Your task to perform on an android device: make emails show in primary in the gmail app Image 0: 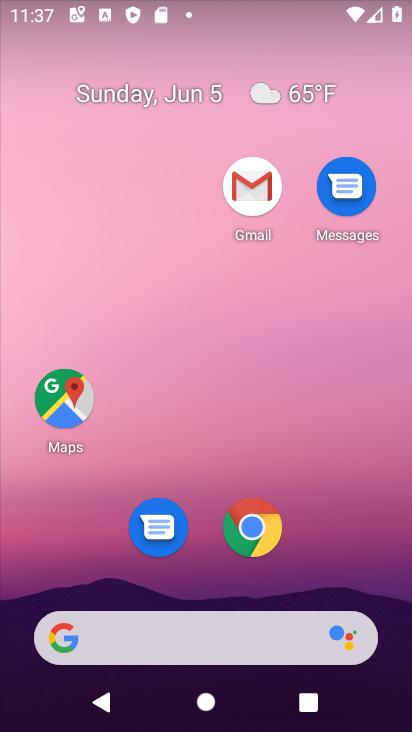
Step 0: click (252, 194)
Your task to perform on an android device: make emails show in primary in the gmail app Image 1: 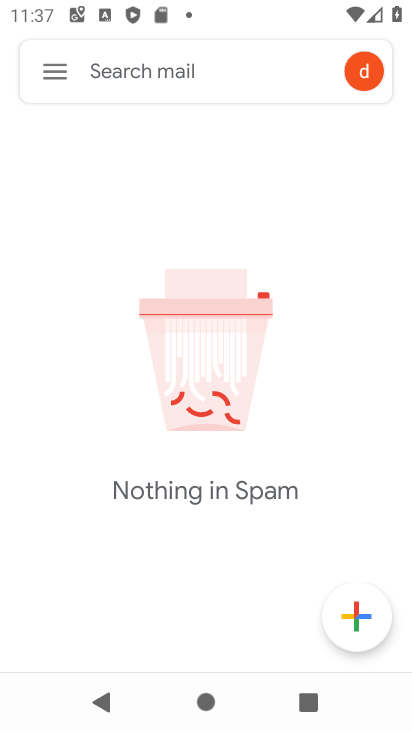
Step 1: click (58, 61)
Your task to perform on an android device: make emails show in primary in the gmail app Image 2: 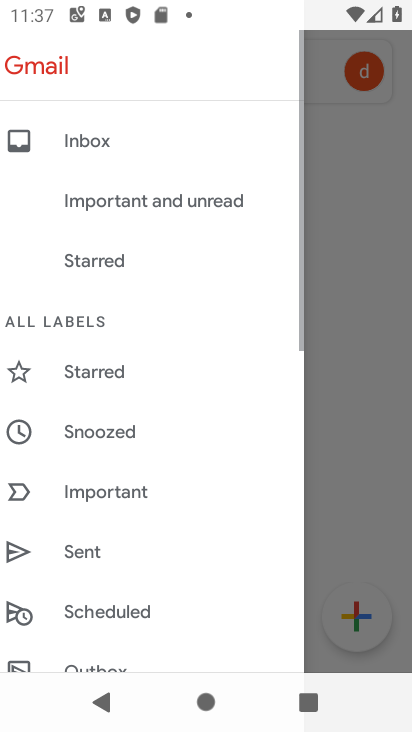
Step 2: click (60, 60)
Your task to perform on an android device: make emails show in primary in the gmail app Image 3: 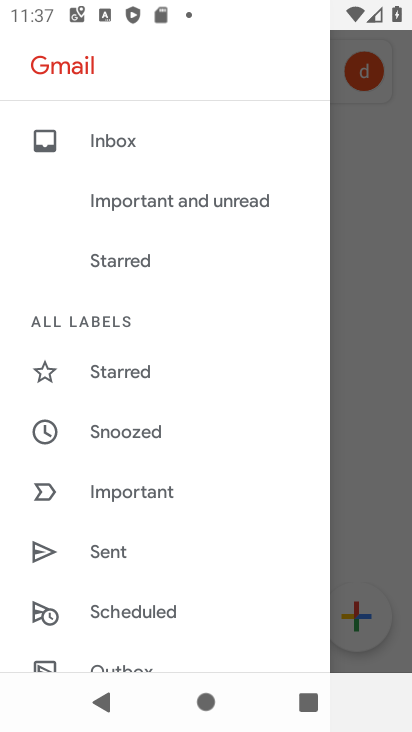
Step 3: drag from (195, 572) to (210, 467)
Your task to perform on an android device: make emails show in primary in the gmail app Image 4: 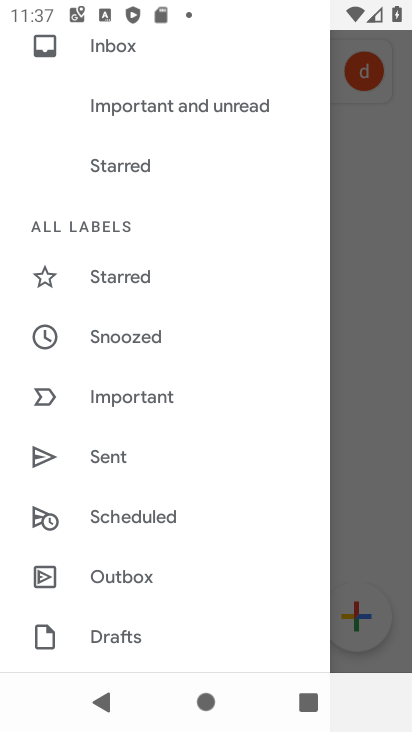
Step 4: drag from (292, 600) to (280, 459)
Your task to perform on an android device: make emails show in primary in the gmail app Image 5: 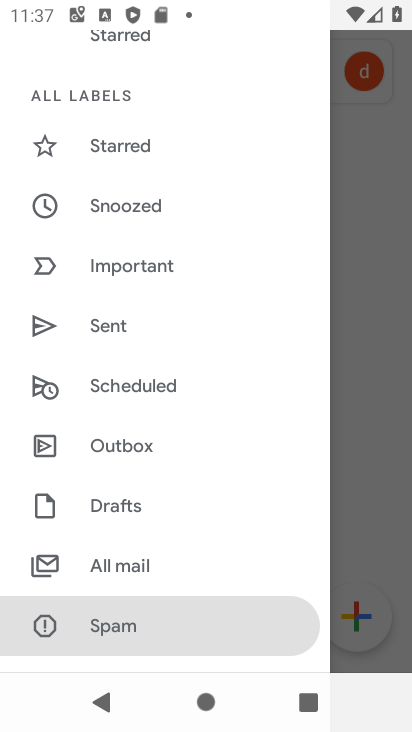
Step 5: click (252, 496)
Your task to perform on an android device: make emails show in primary in the gmail app Image 6: 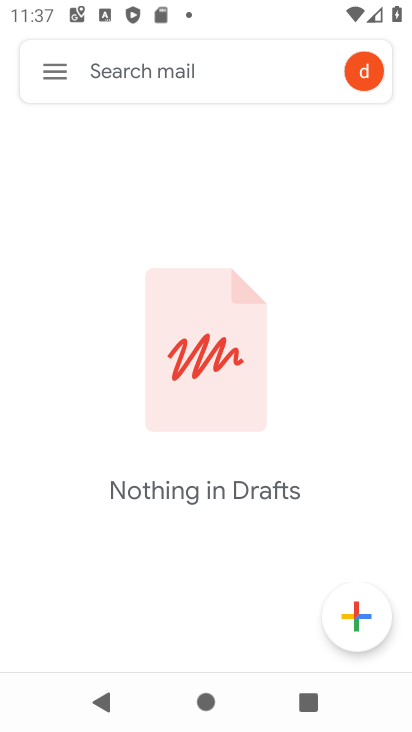
Step 6: click (59, 76)
Your task to perform on an android device: make emails show in primary in the gmail app Image 7: 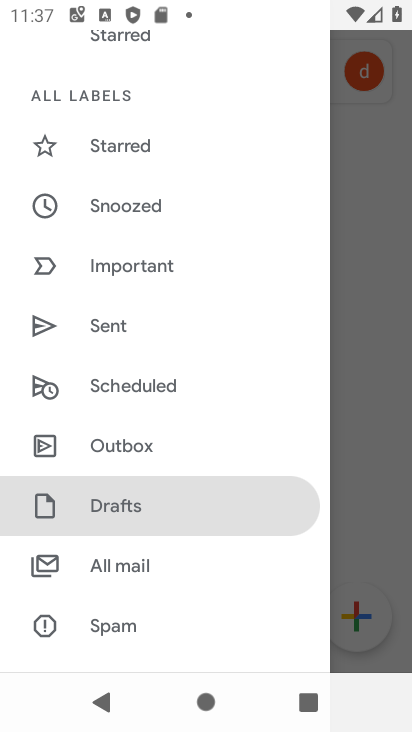
Step 7: drag from (324, 586) to (312, 253)
Your task to perform on an android device: make emails show in primary in the gmail app Image 8: 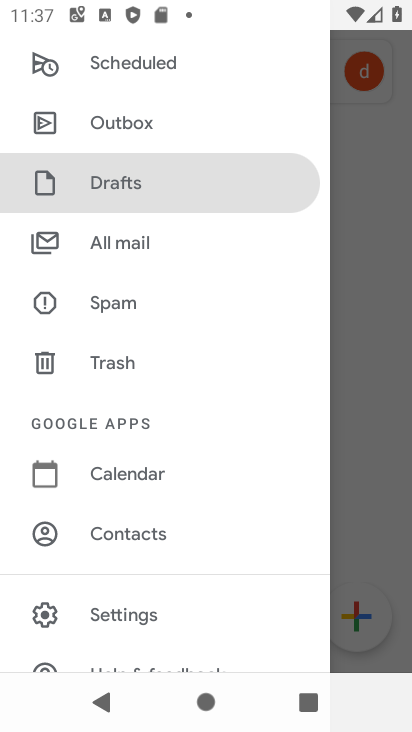
Step 8: click (90, 618)
Your task to perform on an android device: make emails show in primary in the gmail app Image 9: 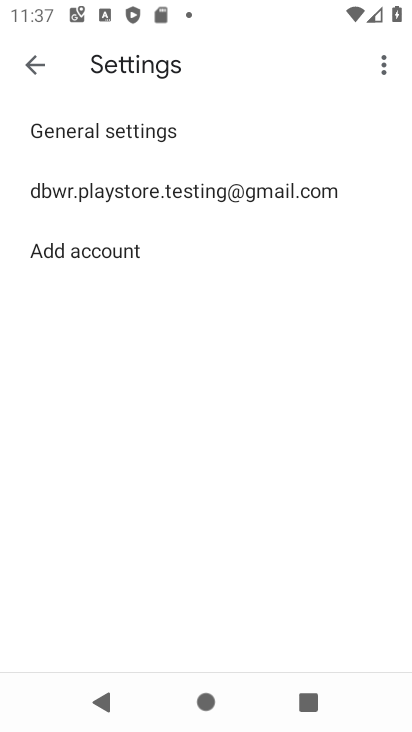
Step 9: click (95, 131)
Your task to perform on an android device: make emails show in primary in the gmail app Image 10: 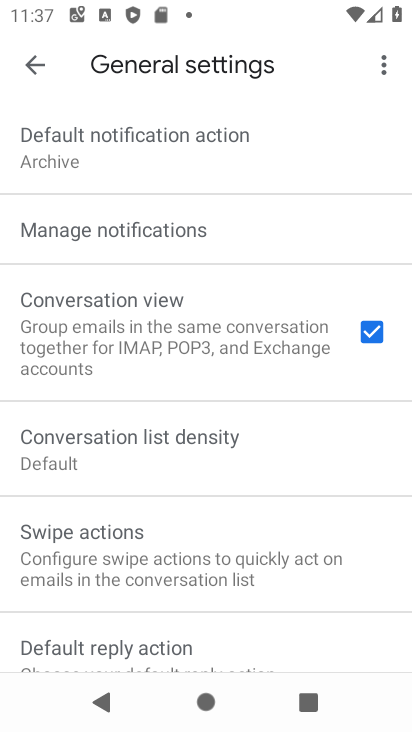
Step 10: task complete